Your task to perform on an android device: Go to Android settings Image 0: 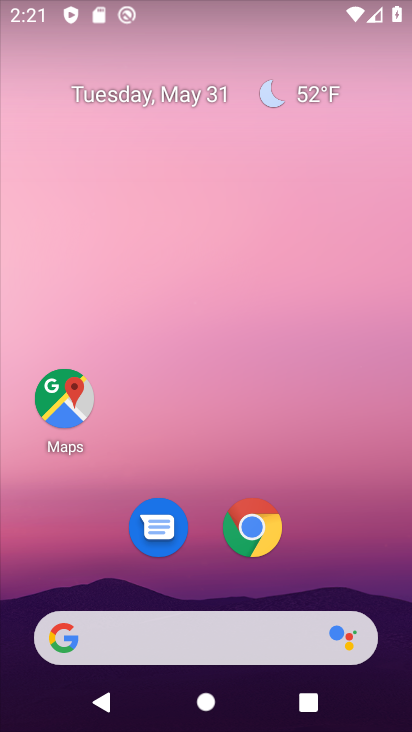
Step 0: drag from (77, 591) to (164, 201)
Your task to perform on an android device: Go to Android settings Image 1: 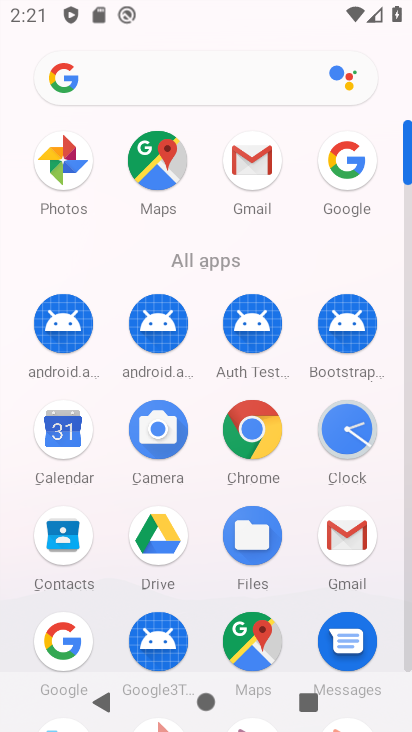
Step 1: drag from (224, 520) to (279, 377)
Your task to perform on an android device: Go to Android settings Image 2: 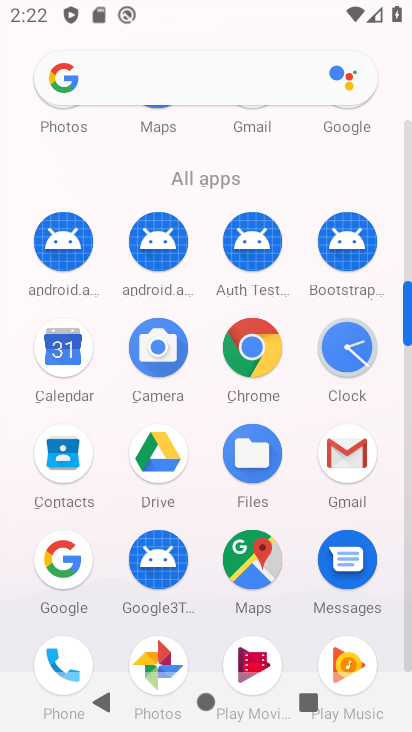
Step 2: drag from (127, 536) to (222, 260)
Your task to perform on an android device: Go to Android settings Image 3: 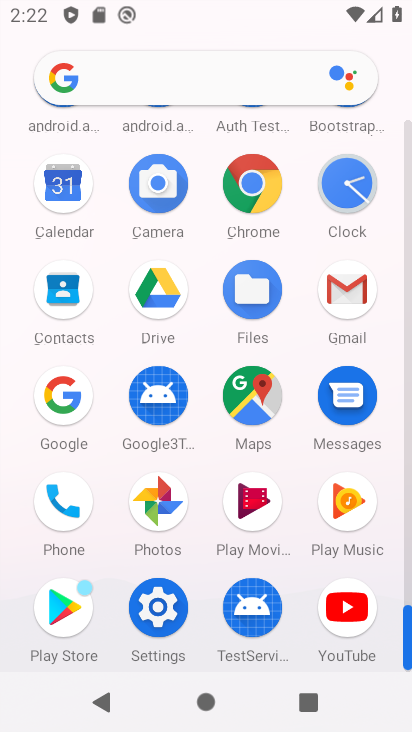
Step 3: click (150, 627)
Your task to perform on an android device: Go to Android settings Image 4: 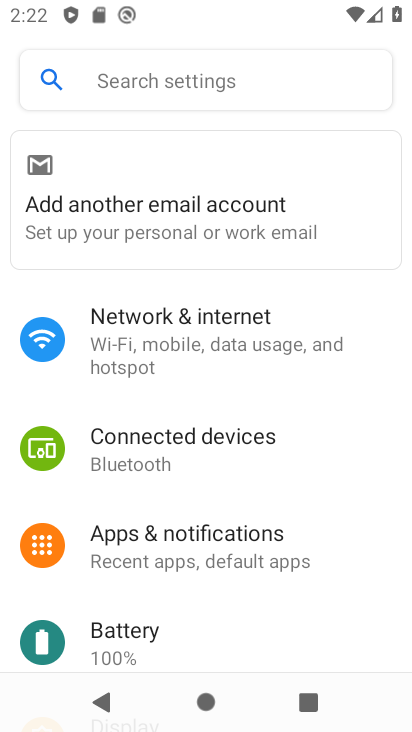
Step 4: task complete